Your task to perform on an android device: empty trash in the gmail app Image 0: 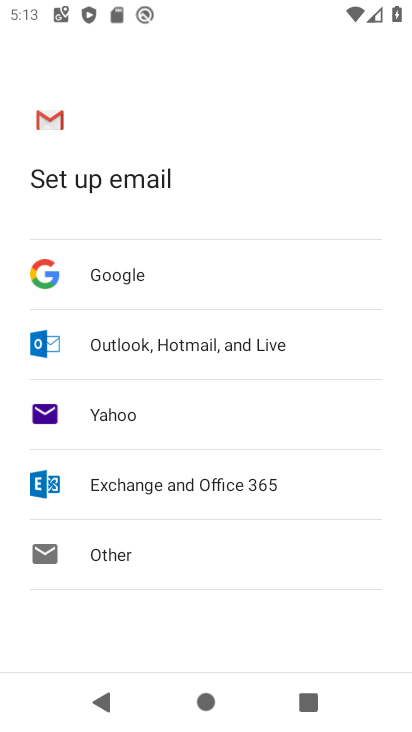
Step 0: press home button
Your task to perform on an android device: empty trash in the gmail app Image 1: 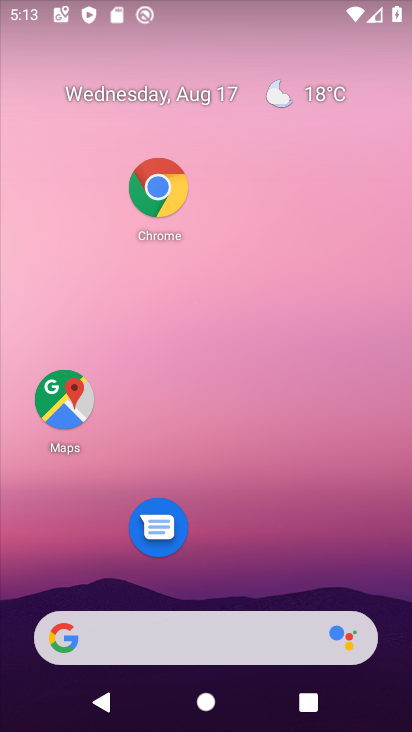
Step 1: drag from (219, 563) to (258, 22)
Your task to perform on an android device: empty trash in the gmail app Image 2: 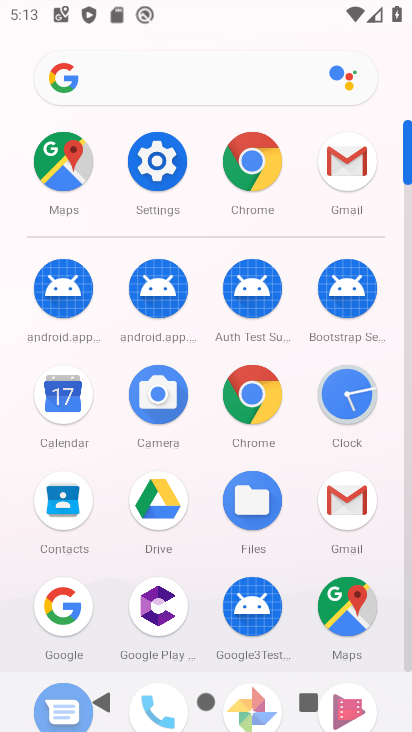
Step 2: click (350, 163)
Your task to perform on an android device: empty trash in the gmail app Image 3: 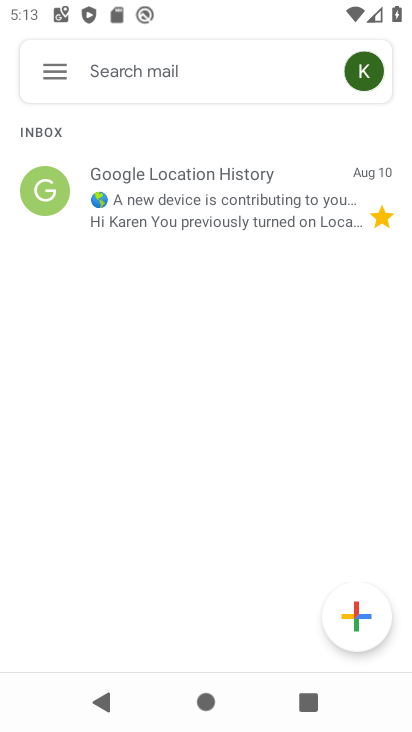
Step 3: click (64, 58)
Your task to perform on an android device: empty trash in the gmail app Image 4: 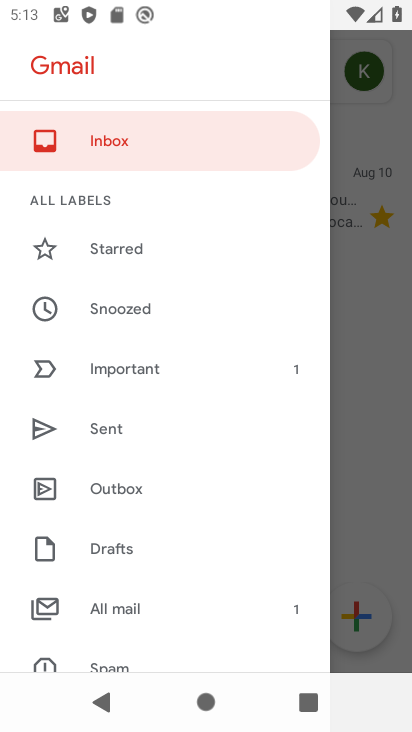
Step 4: drag from (111, 625) to (116, 153)
Your task to perform on an android device: empty trash in the gmail app Image 5: 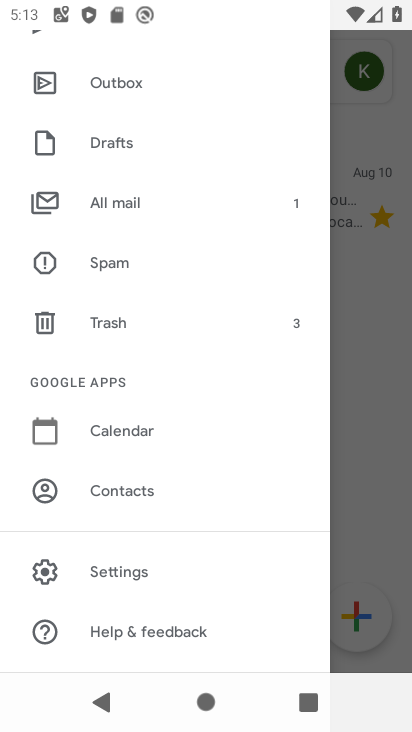
Step 5: click (146, 332)
Your task to perform on an android device: empty trash in the gmail app Image 6: 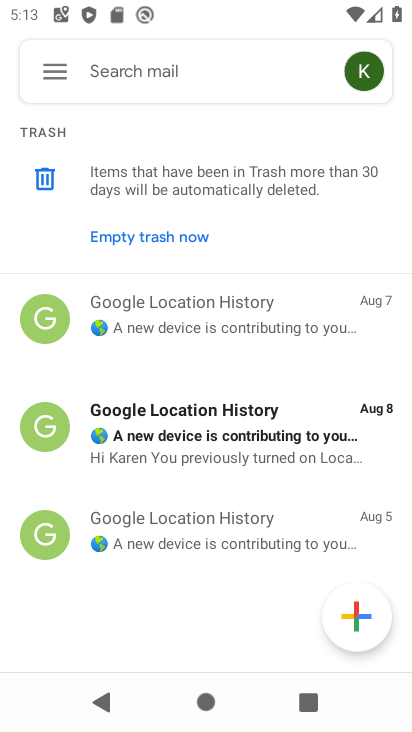
Step 6: click (142, 229)
Your task to perform on an android device: empty trash in the gmail app Image 7: 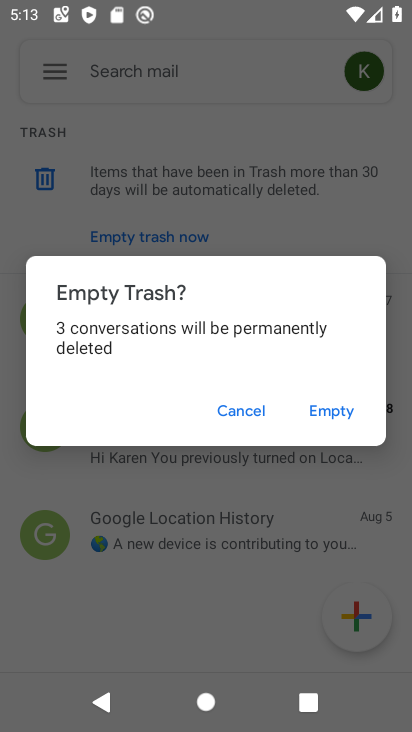
Step 7: click (350, 416)
Your task to perform on an android device: empty trash in the gmail app Image 8: 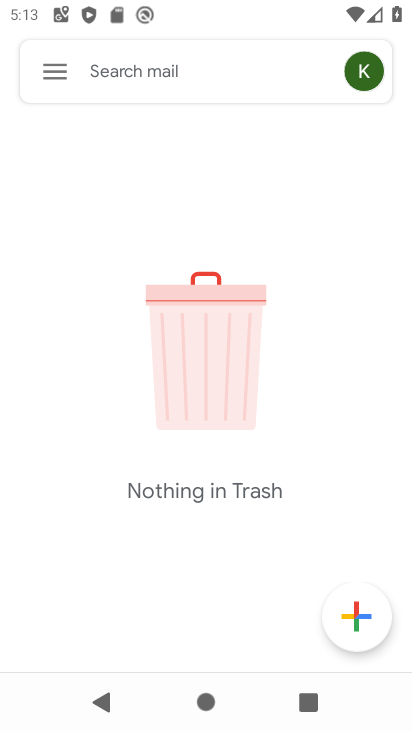
Step 8: task complete